Your task to perform on an android device: Go to accessibility settings Image 0: 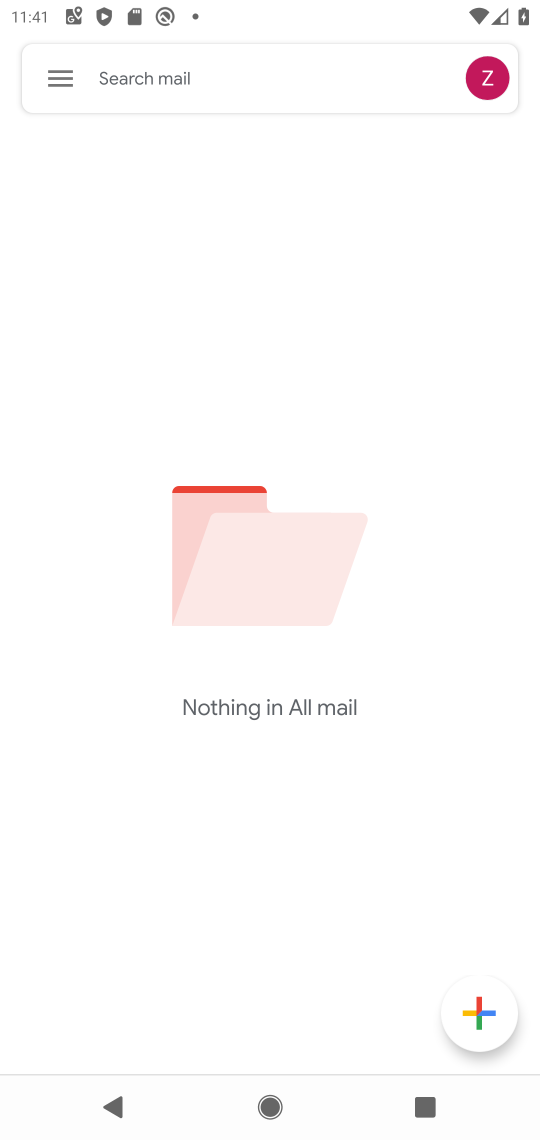
Step 0: press home button
Your task to perform on an android device: Go to accessibility settings Image 1: 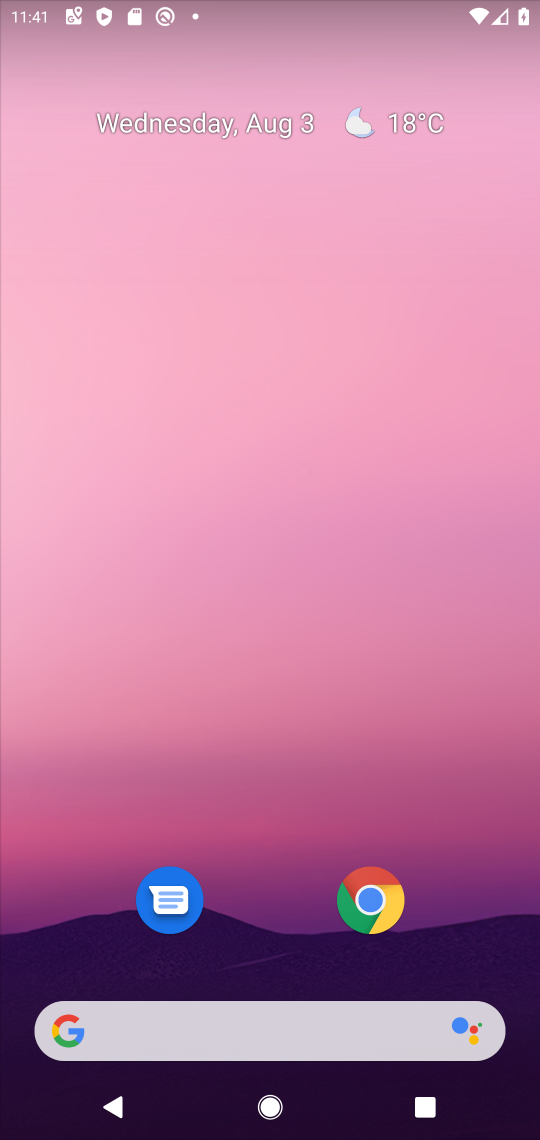
Step 1: drag from (302, 803) to (393, 2)
Your task to perform on an android device: Go to accessibility settings Image 2: 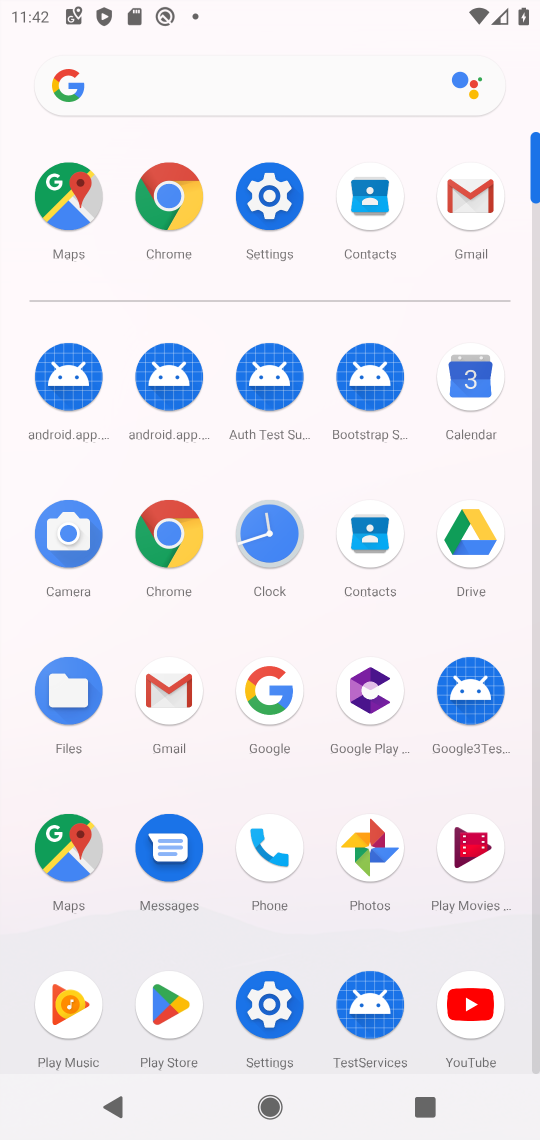
Step 2: click (279, 199)
Your task to perform on an android device: Go to accessibility settings Image 3: 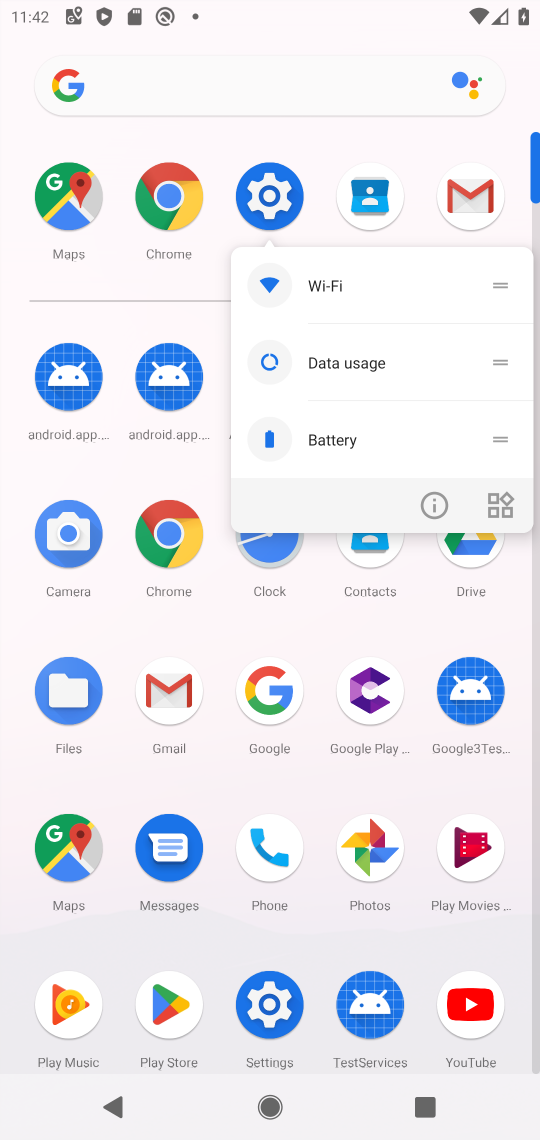
Step 3: click (253, 190)
Your task to perform on an android device: Go to accessibility settings Image 4: 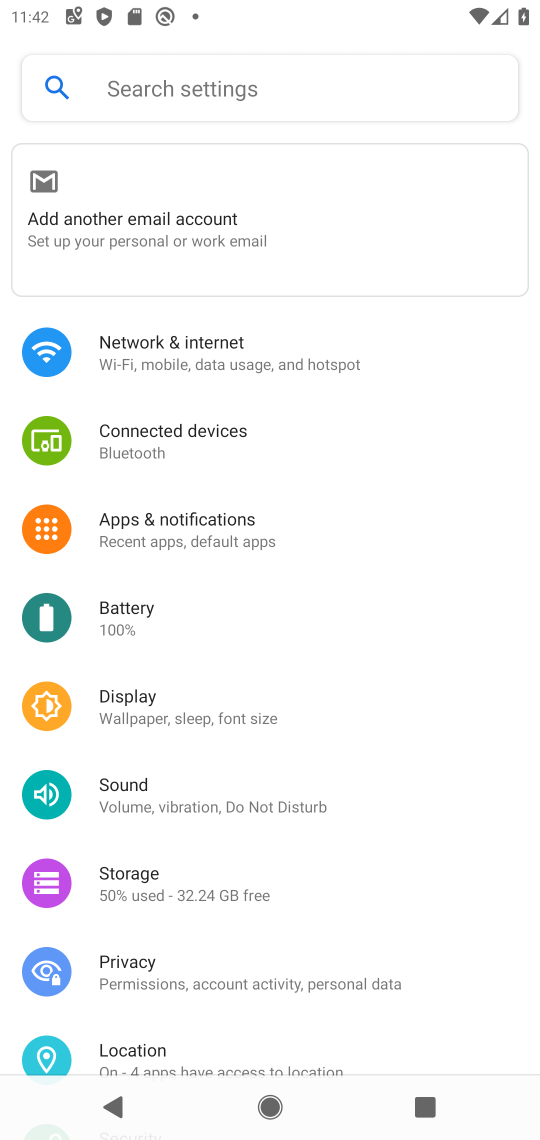
Step 4: drag from (155, 928) to (223, 193)
Your task to perform on an android device: Go to accessibility settings Image 5: 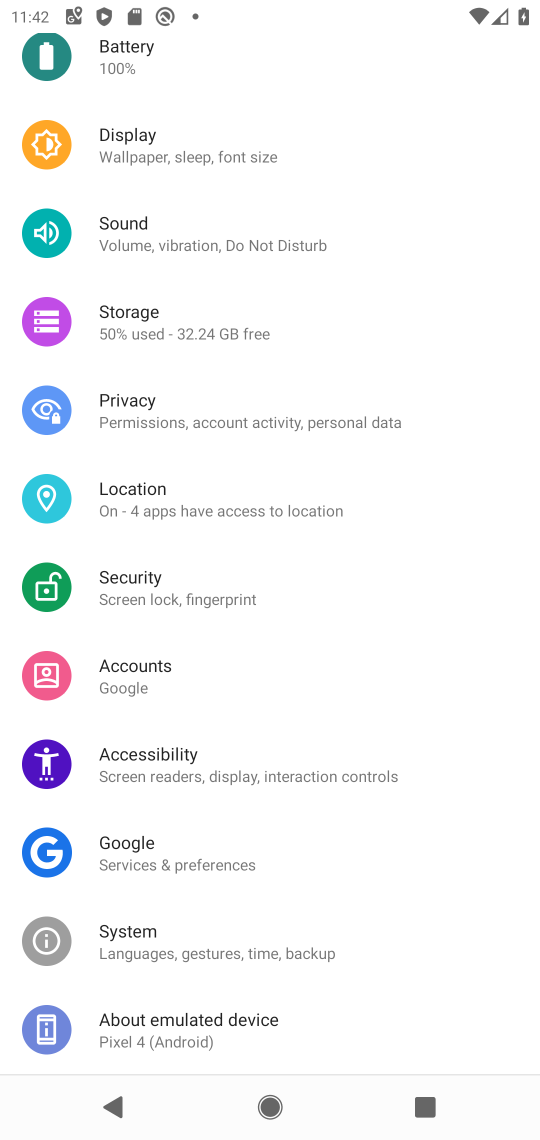
Step 5: click (158, 761)
Your task to perform on an android device: Go to accessibility settings Image 6: 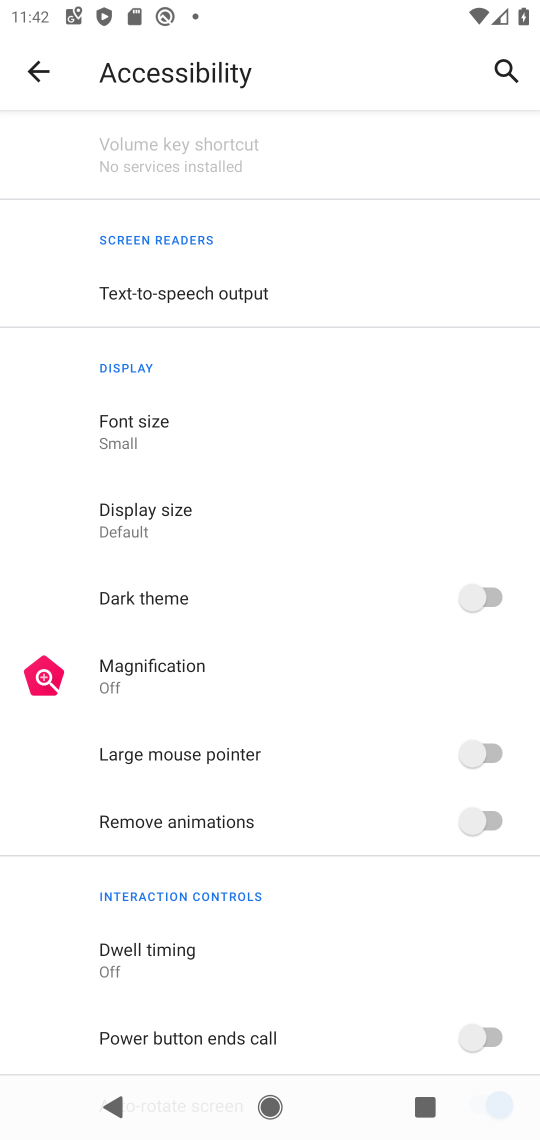
Step 6: task complete